Your task to perform on an android device: Go to Yahoo.com Image 0: 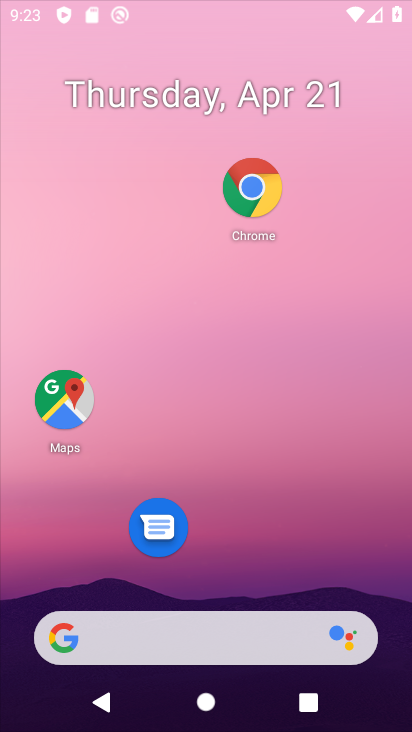
Step 0: click (330, 33)
Your task to perform on an android device: Go to Yahoo.com Image 1: 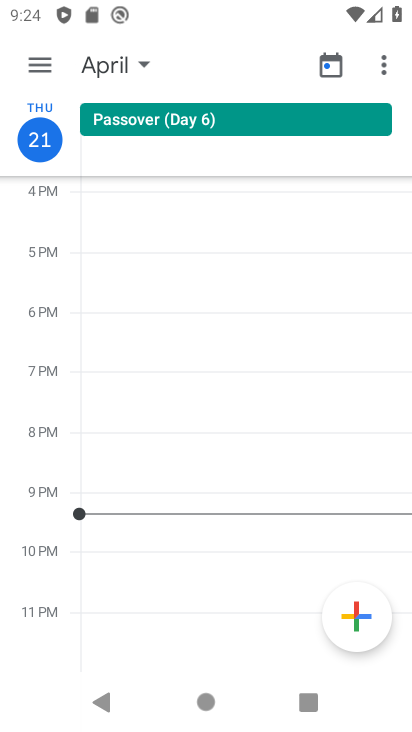
Step 1: press home button
Your task to perform on an android device: Go to Yahoo.com Image 2: 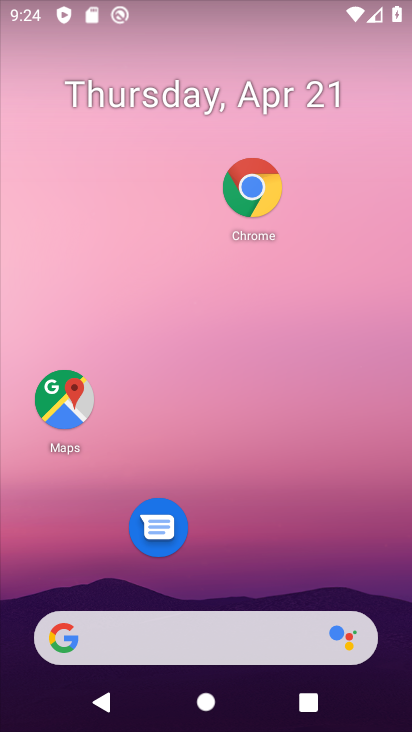
Step 2: click (263, 209)
Your task to perform on an android device: Go to Yahoo.com Image 3: 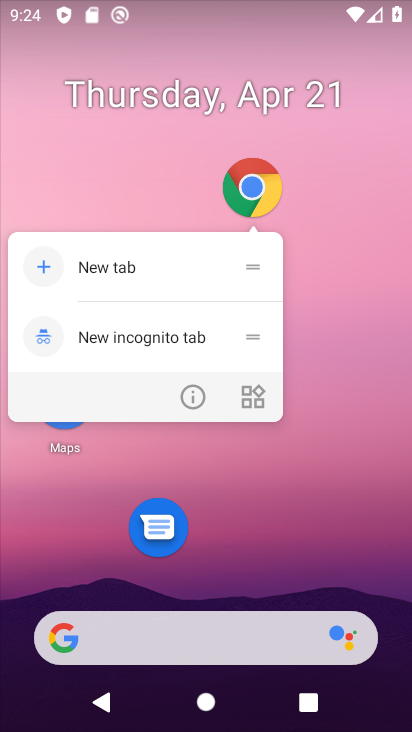
Step 3: click (261, 209)
Your task to perform on an android device: Go to Yahoo.com Image 4: 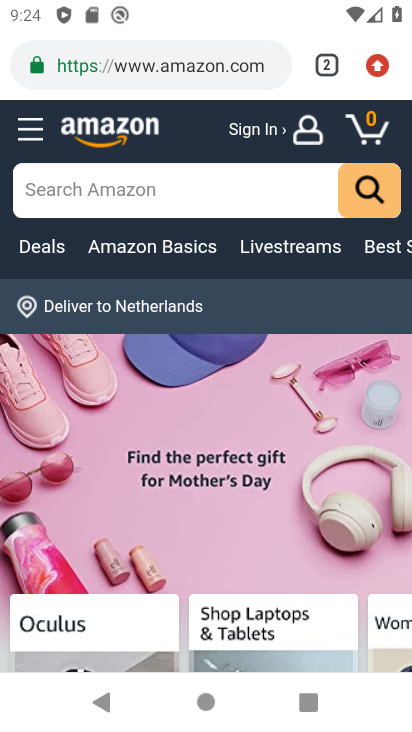
Step 4: click (247, 75)
Your task to perform on an android device: Go to Yahoo.com Image 5: 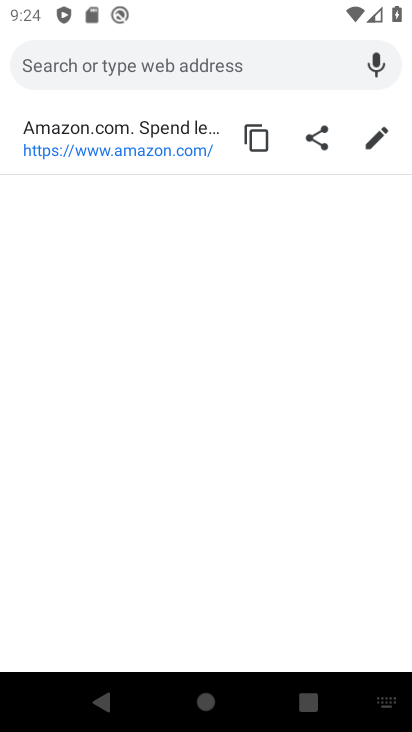
Step 5: type "yahoo.com"
Your task to perform on an android device: Go to Yahoo.com Image 6: 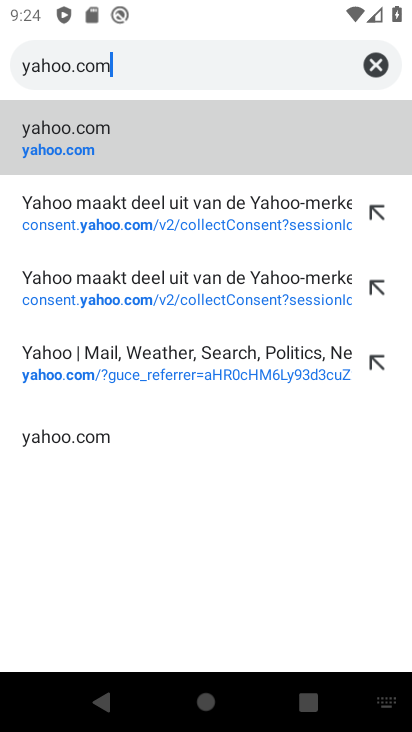
Step 6: click (141, 141)
Your task to perform on an android device: Go to Yahoo.com Image 7: 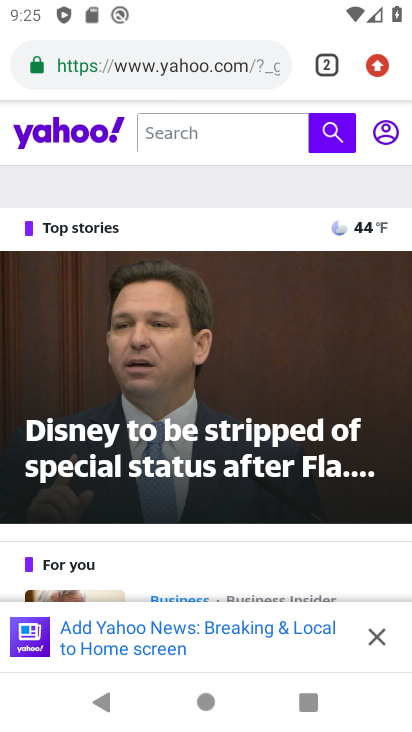
Step 7: task complete